Your task to perform on an android device: Open internet settings Image 0: 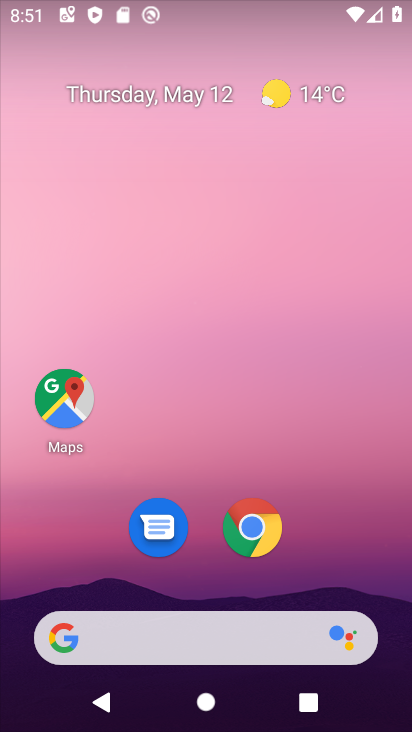
Step 0: drag from (338, 577) to (227, 80)
Your task to perform on an android device: Open internet settings Image 1: 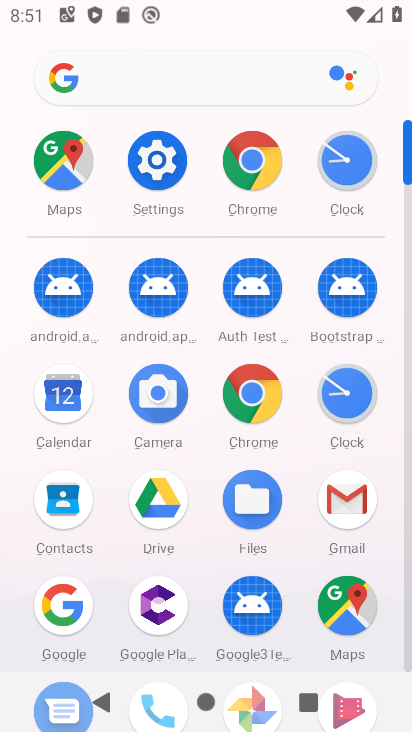
Step 1: click (180, 194)
Your task to perform on an android device: Open internet settings Image 2: 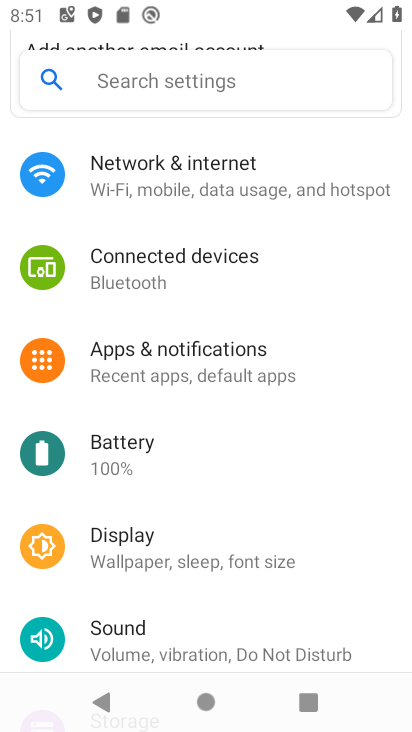
Step 2: click (171, 195)
Your task to perform on an android device: Open internet settings Image 3: 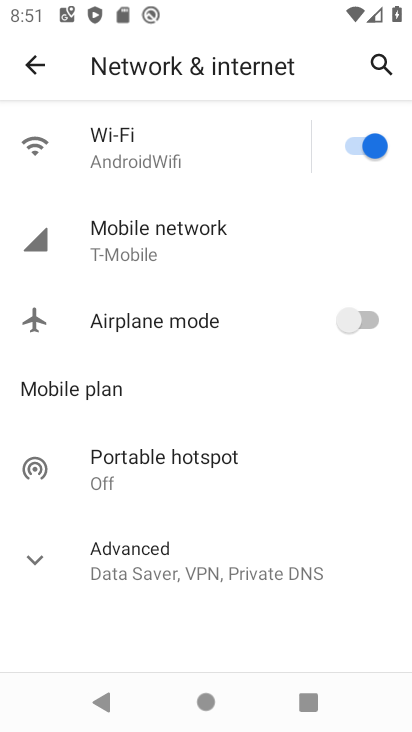
Step 3: click (180, 223)
Your task to perform on an android device: Open internet settings Image 4: 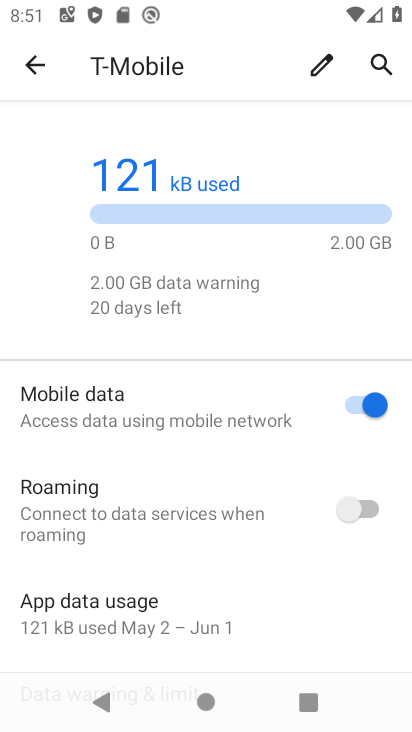
Step 4: task complete